Your task to perform on an android device: Open Google Maps and go to "Timeline" Image 0: 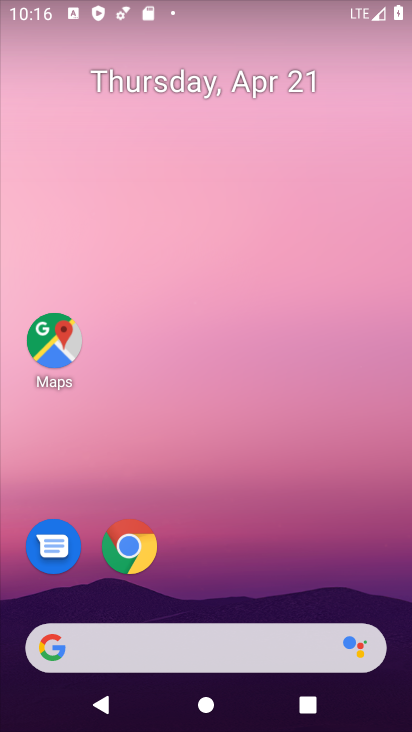
Step 0: click (55, 336)
Your task to perform on an android device: Open Google Maps and go to "Timeline" Image 1: 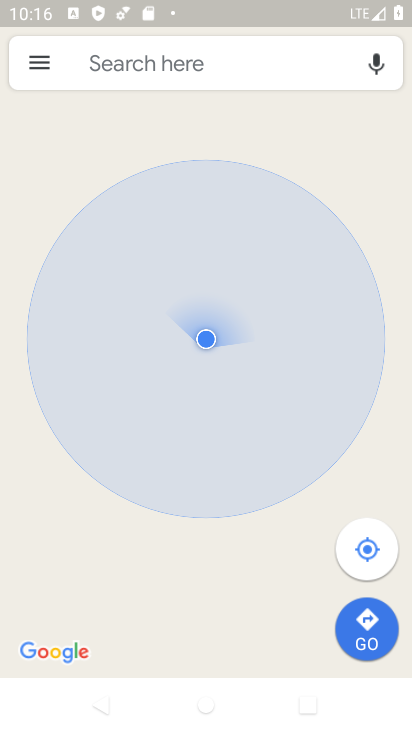
Step 1: click (35, 60)
Your task to perform on an android device: Open Google Maps and go to "Timeline" Image 2: 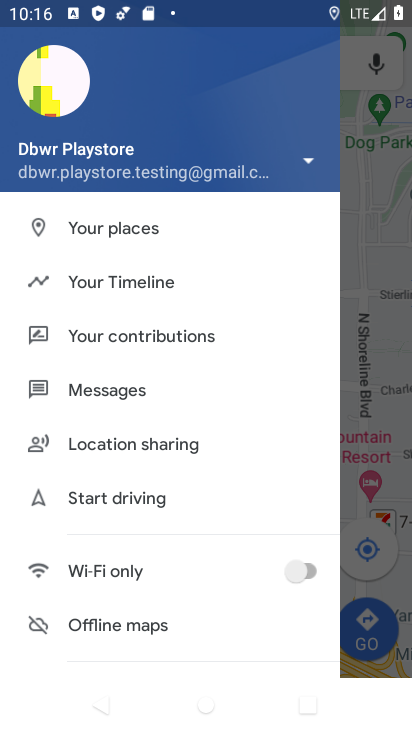
Step 2: click (137, 281)
Your task to perform on an android device: Open Google Maps and go to "Timeline" Image 3: 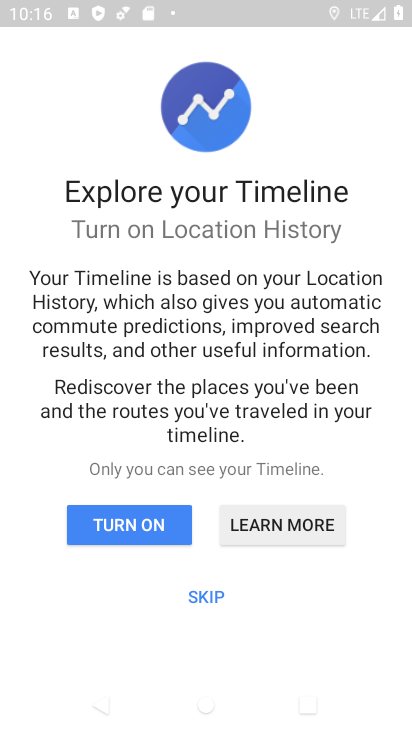
Step 3: click (199, 590)
Your task to perform on an android device: Open Google Maps and go to "Timeline" Image 4: 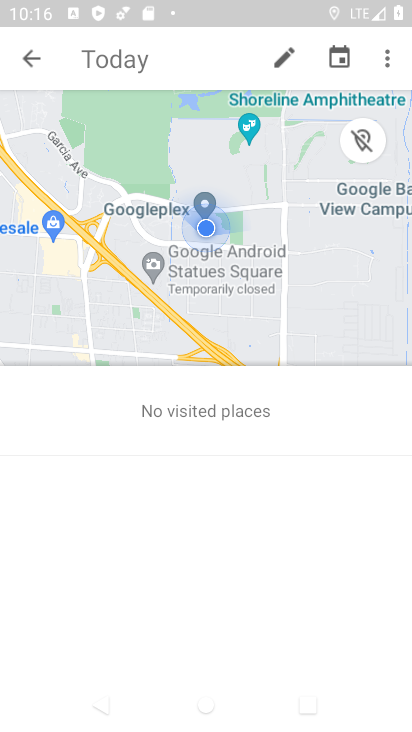
Step 4: task complete